Your task to perform on an android device: turn on showing notifications on the lock screen Image 0: 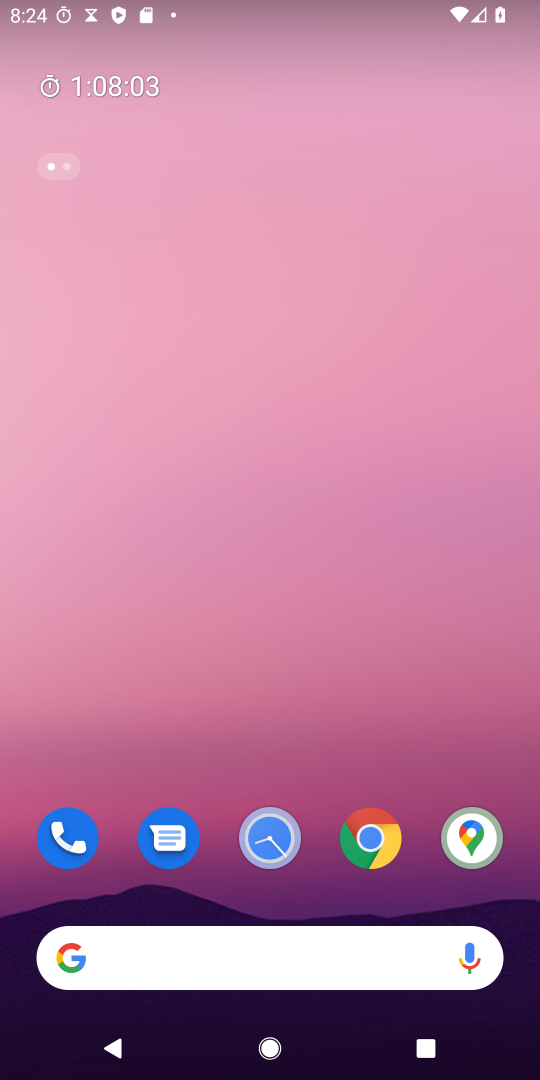
Step 0: drag from (369, 923) to (195, 281)
Your task to perform on an android device: turn on showing notifications on the lock screen Image 1: 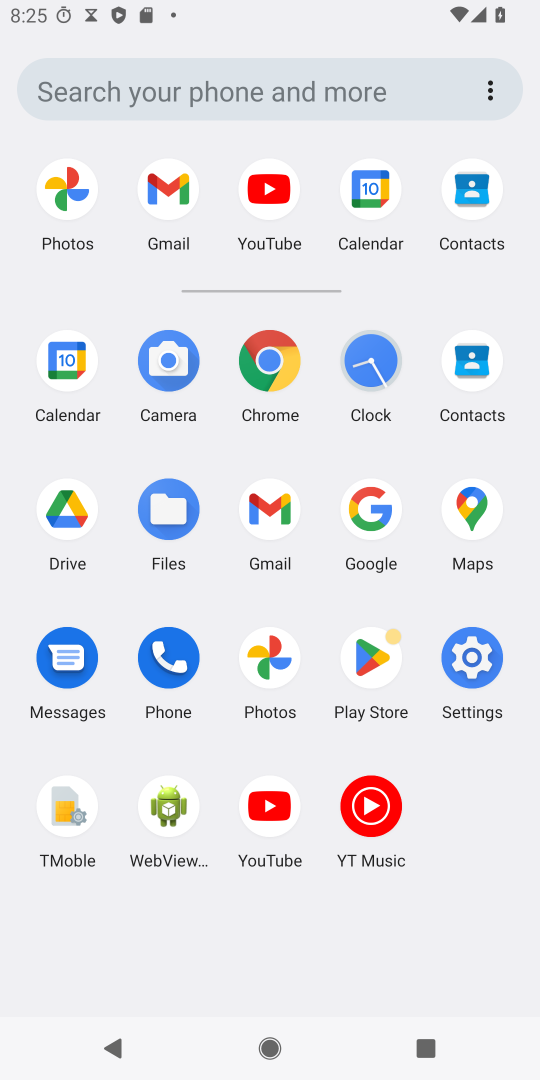
Step 1: click (450, 669)
Your task to perform on an android device: turn on showing notifications on the lock screen Image 2: 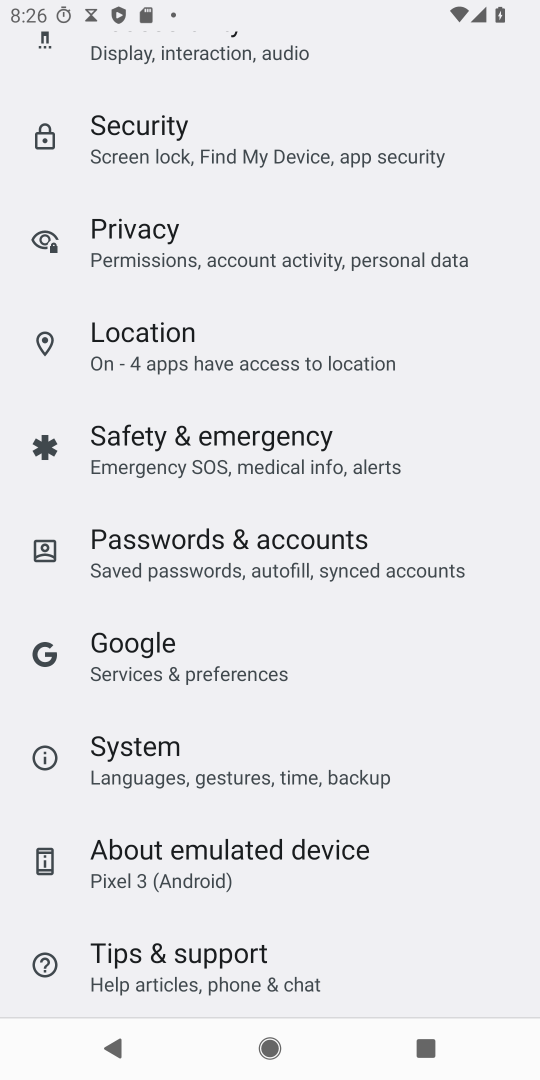
Step 2: drag from (222, 364) to (238, 783)
Your task to perform on an android device: turn on showing notifications on the lock screen Image 3: 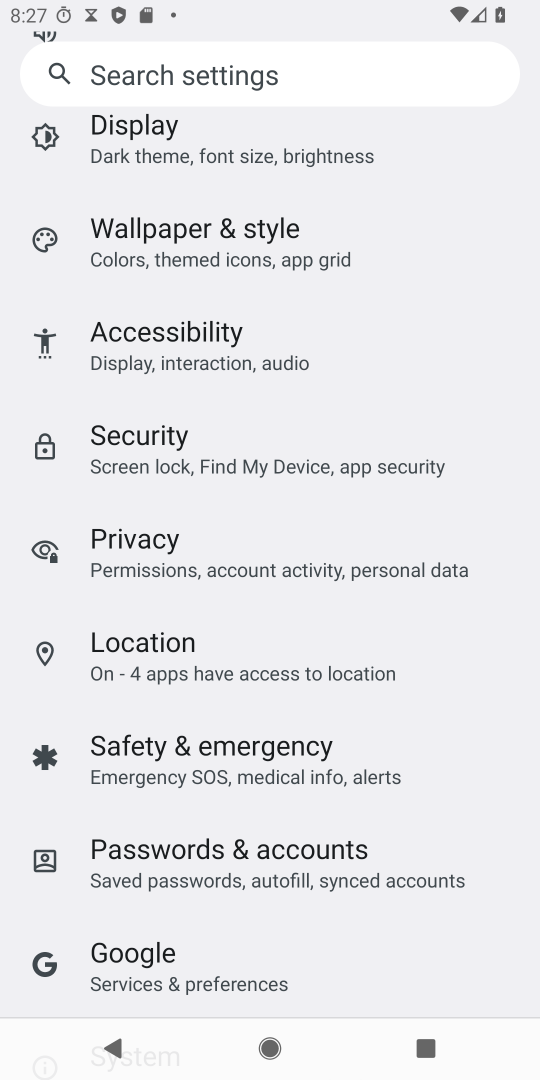
Step 3: drag from (258, 226) to (350, 869)
Your task to perform on an android device: turn on showing notifications on the lock screen Image 4: 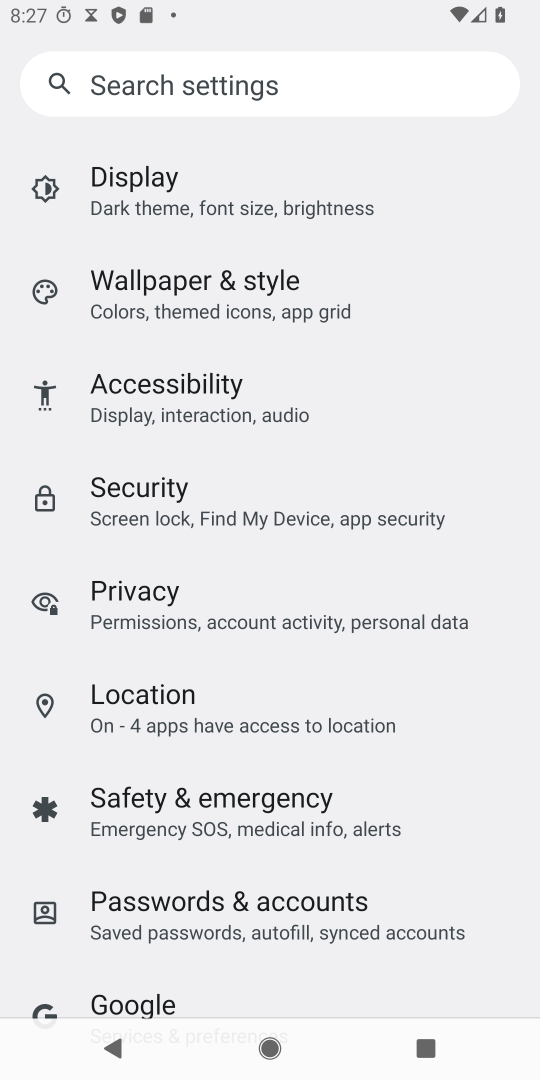
Step 4: drag from (211, 579) to (180, 1034)
Your task to perform on an android device: turn on showing notifications on the lock screen Image 5: 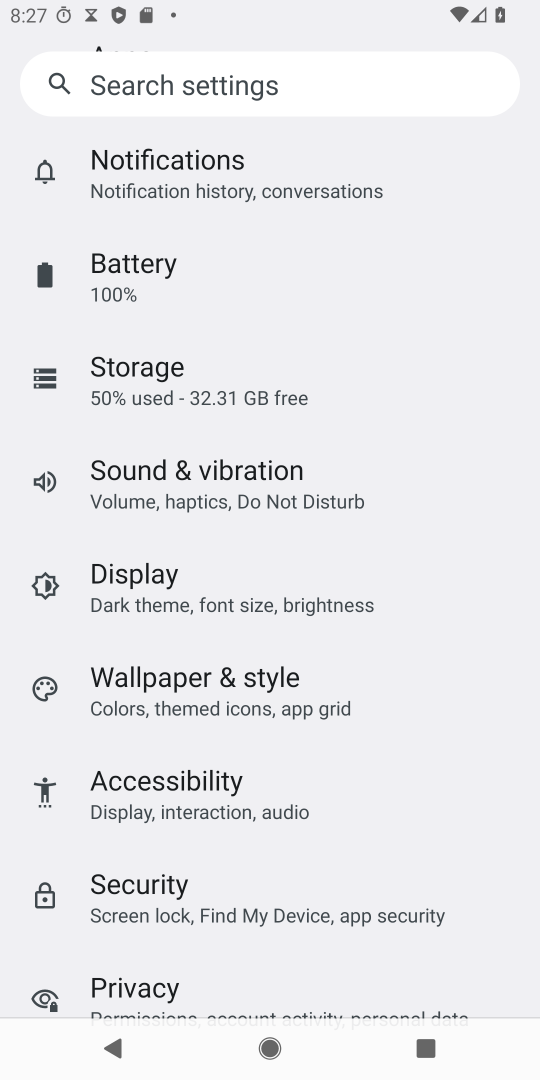
Step 5: click (163, 159)
Your task to perform on an android device: turn on showing notifications on the lock screen Image 6: 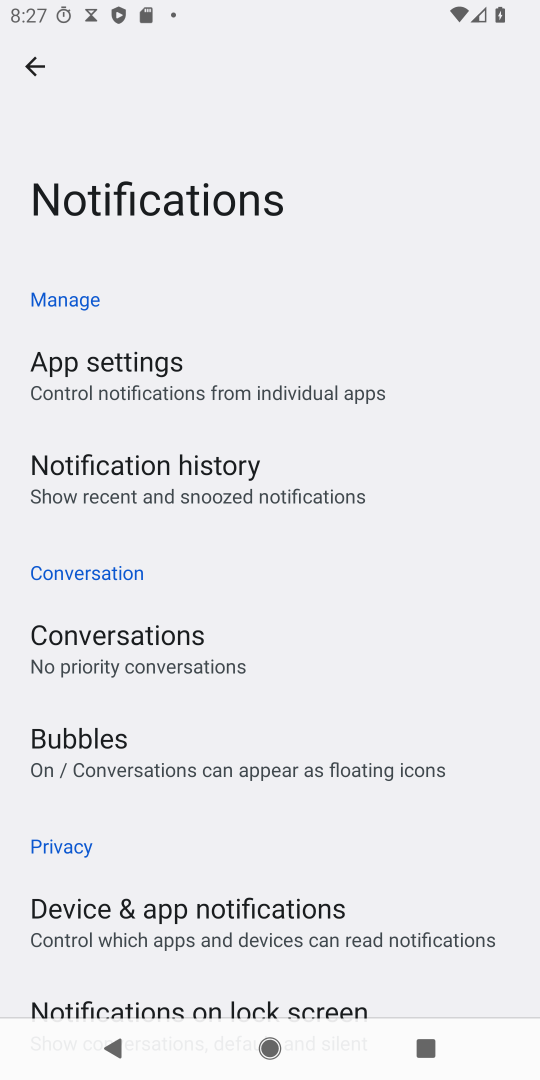
Step 6: drag from (217, 835) to (217, 605)
Your task to perform on an android device: turn on showing notifications on the lock screen Image 7: 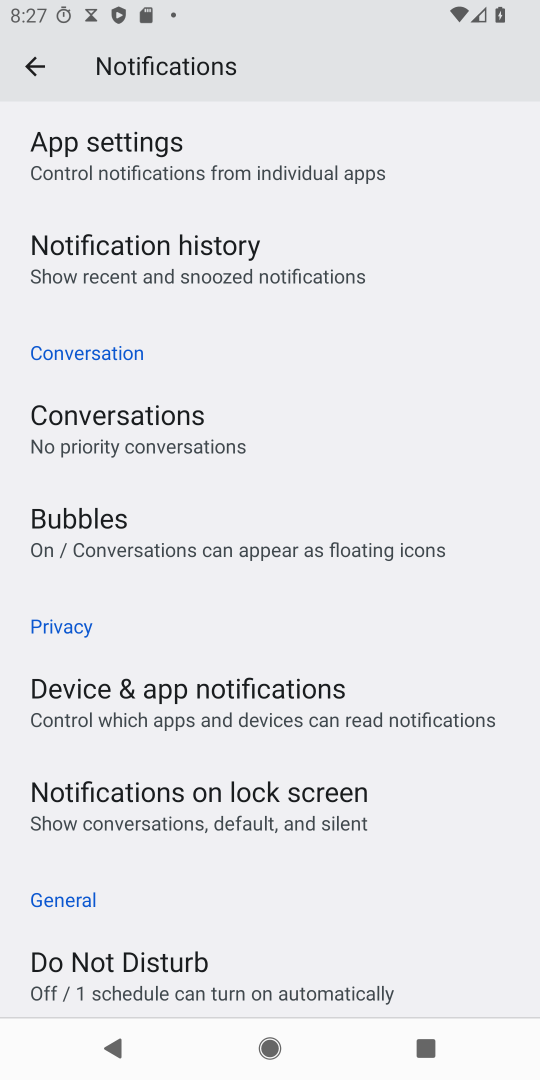
Step 7: click (171, 820)
Your task to perform on an android device: turn on showing notifications on the lock screen Image 8: 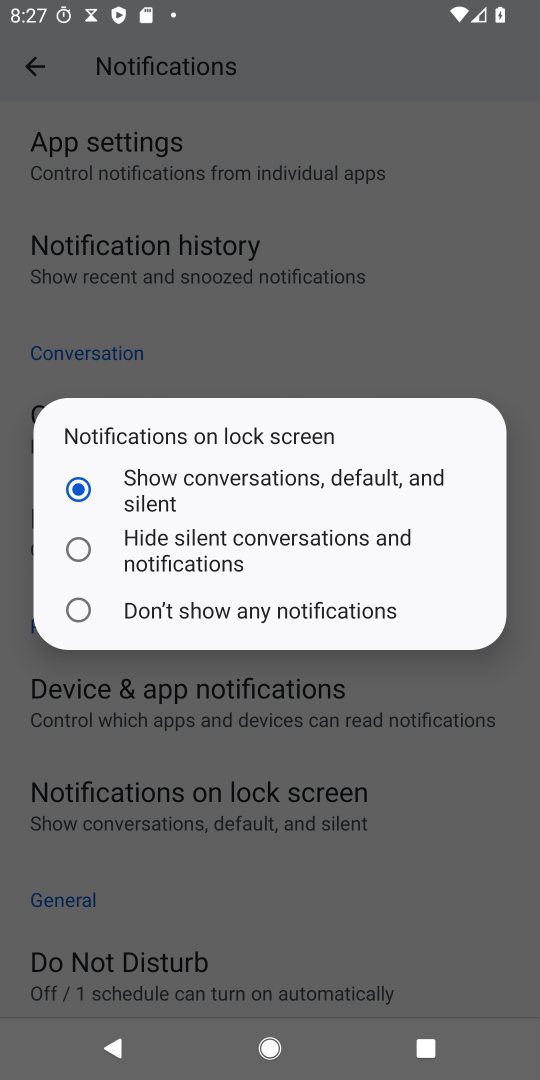
Step 8: task complete